Your task to perform on an android device: clear all cookies in the chrome app Image 0: 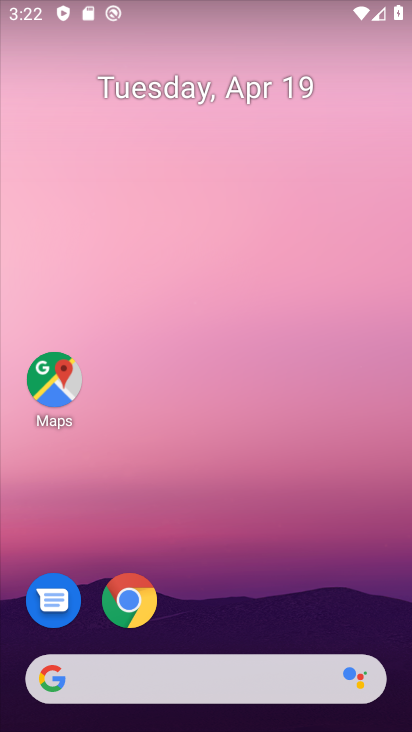
Step 0: click (137, 588)
Your task to perform on an android device: clear all cookies in the chrome app Image 1: 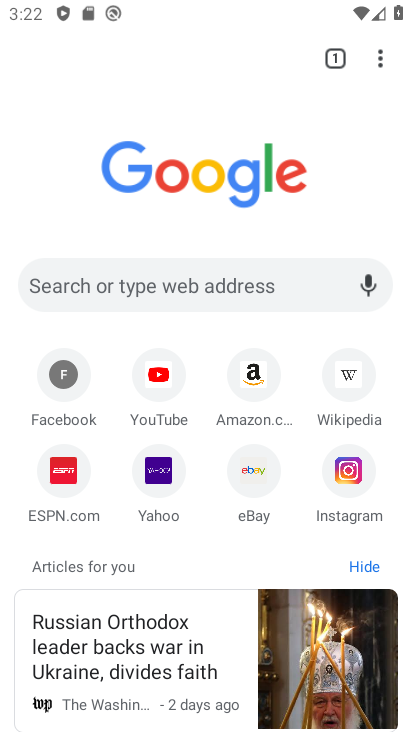
Step 1: click (379, 55)
Your task to perform on an android device: clear all cookies in the chrome app Image 2: 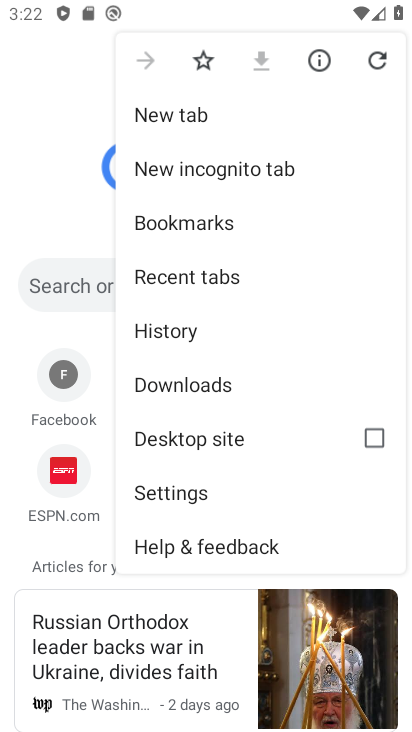
Step 2: click (180, 331)
Your task to perform on an android device: clear all cookies in the chrome app Image 3: 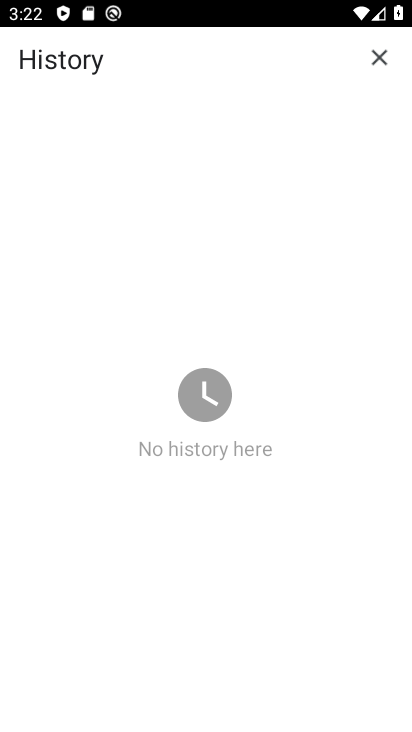
Step 3: task complete